Your task to perform on an android device: turn on wifi Image 0: 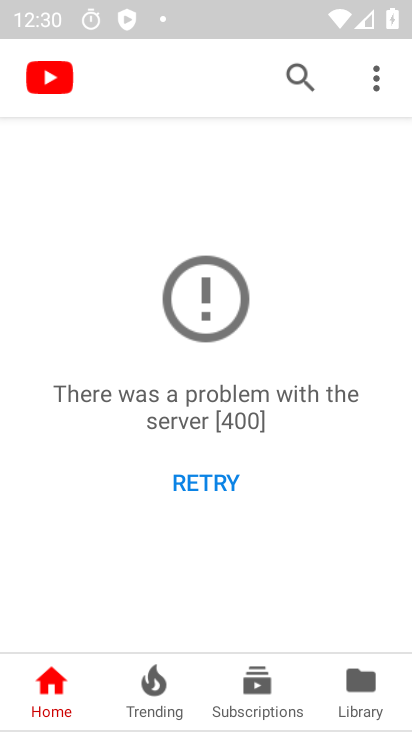
Step 0: press home button
Your task to perform on an android device: turn on wifi Image 1: 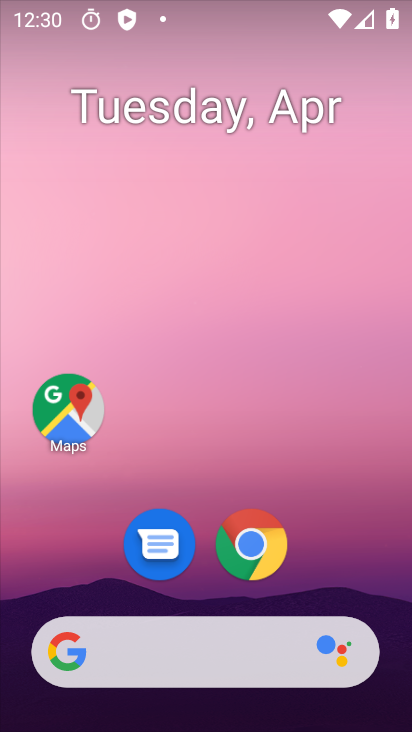
Step 1: drag from (385, 581) to (380, 28)
Your task to perform on an android device: turn on wifi Image 2: 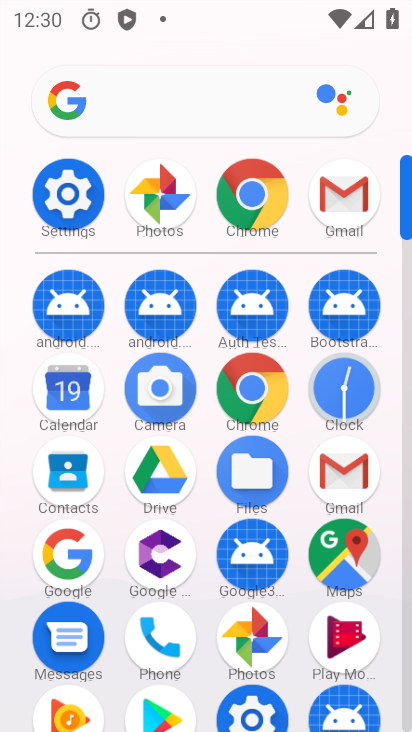
Step 2: click (66, 198)
Your task to perform on an android device: turn on wifi Image 3: 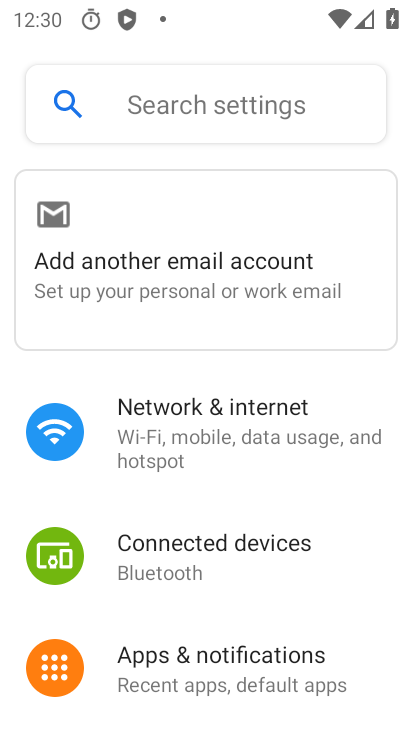
Step 3: click (182, 418)
Your task to perform on an android device: turn on wifi Image 4: 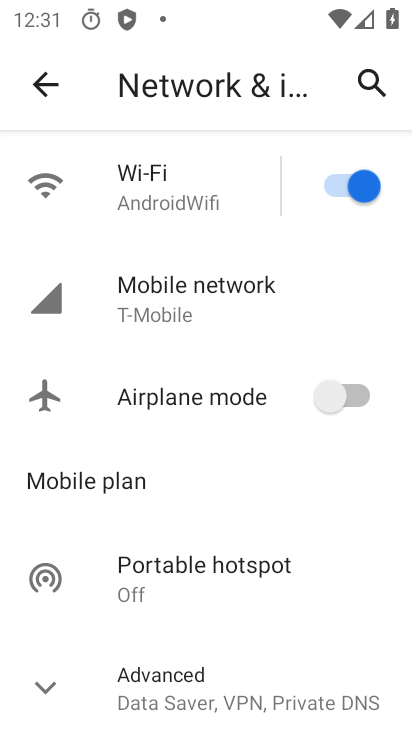
Step 4: task complete